Your task to perform on an android device: install app "Spotify" Image 0: 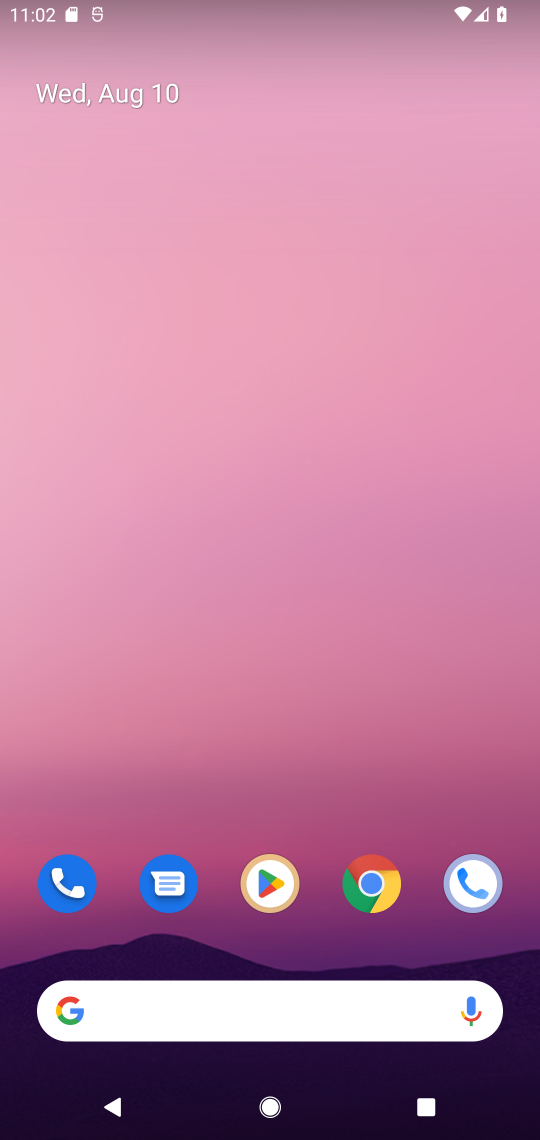
Step 0: drag from (289, 969) to (256, 208)
Your task to perform on an android device: install app "Spotify" Image 1: 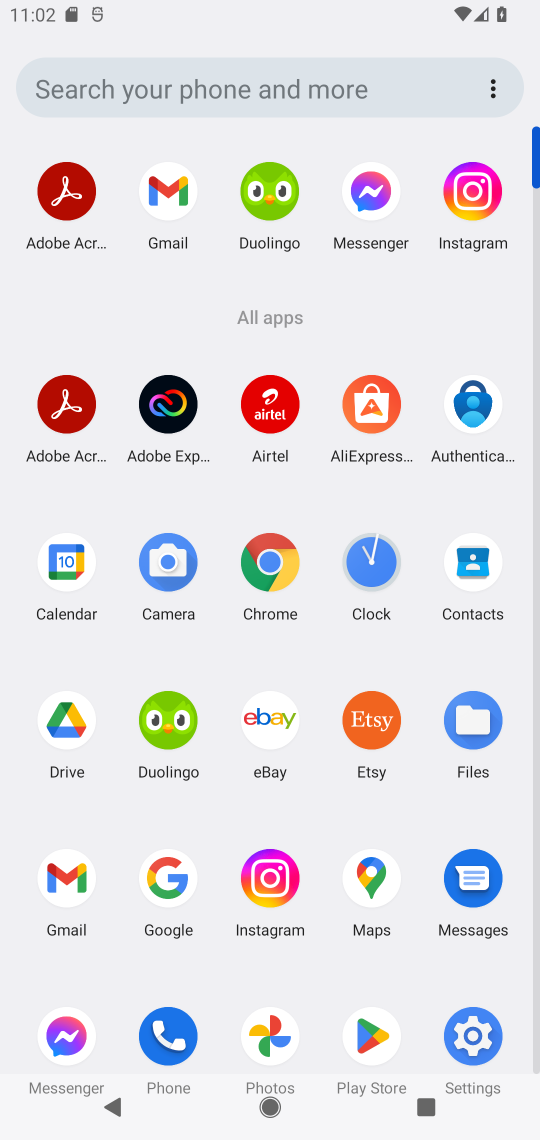
Step 1: click (361, 1031)
Your task to perform on an android device: install app "Spotify" Image 2: 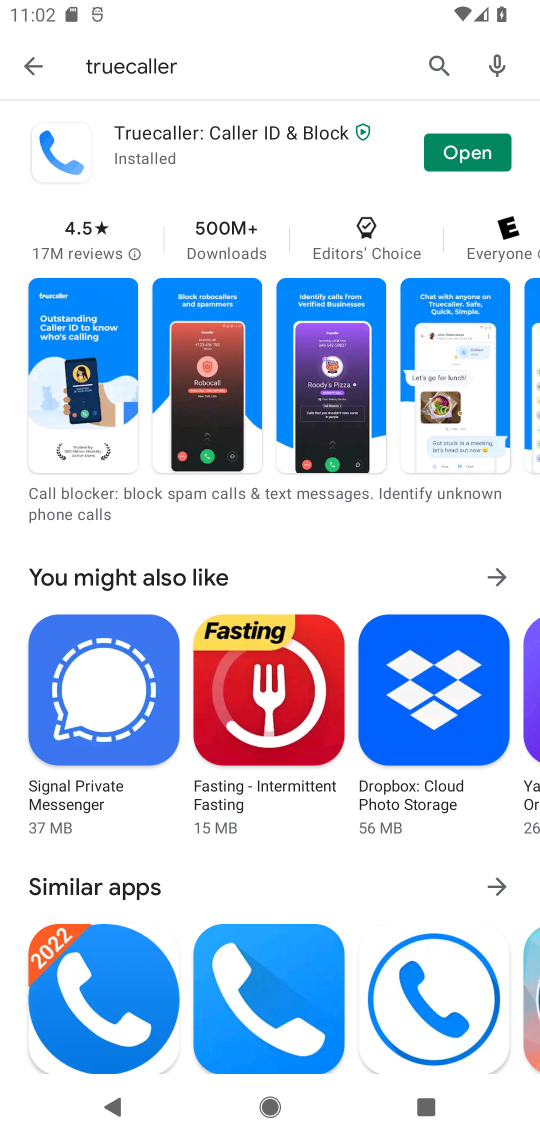
Step 2: click (443, 61)
Your task to perform on an android device: install app "Spotify" Image 3: 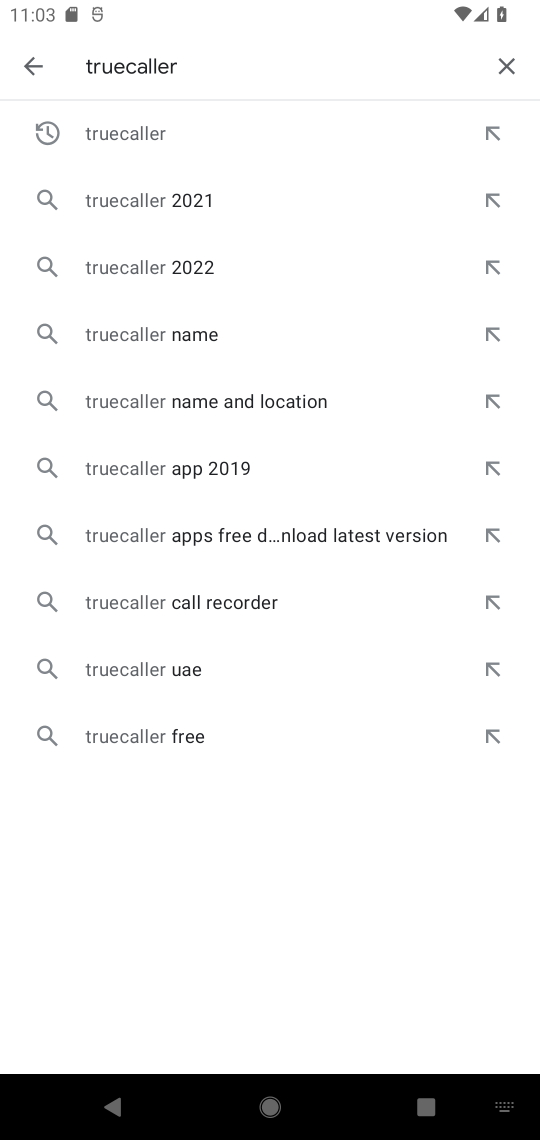
Step 3: click (497, 53)
Your task to perform on an android device: install app "Spotify" Image 4: 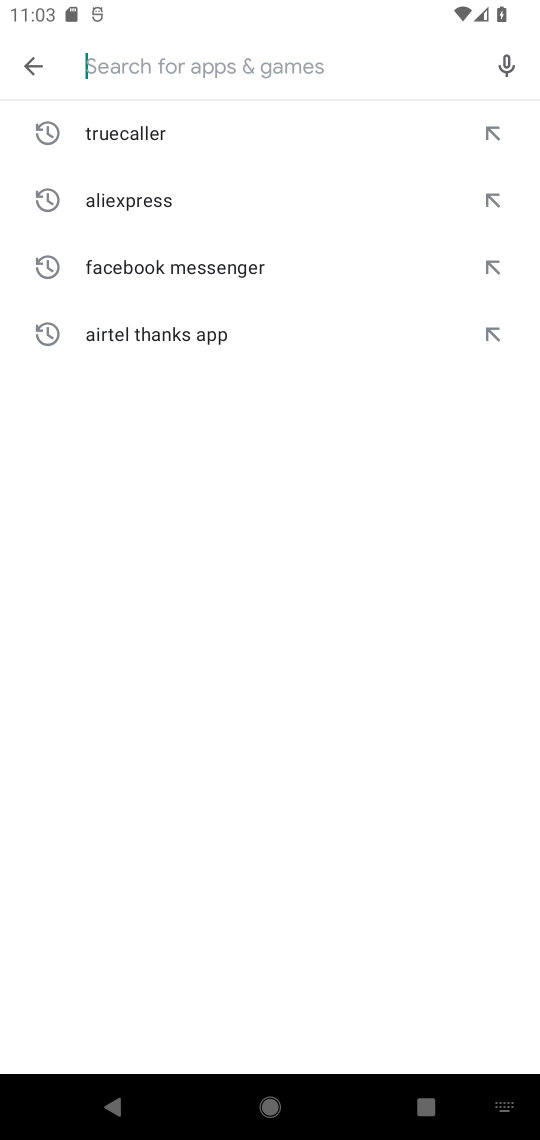
Step 4: type "Spotify"
Your task to perform on an android device: install app "Spotify" Image 5: 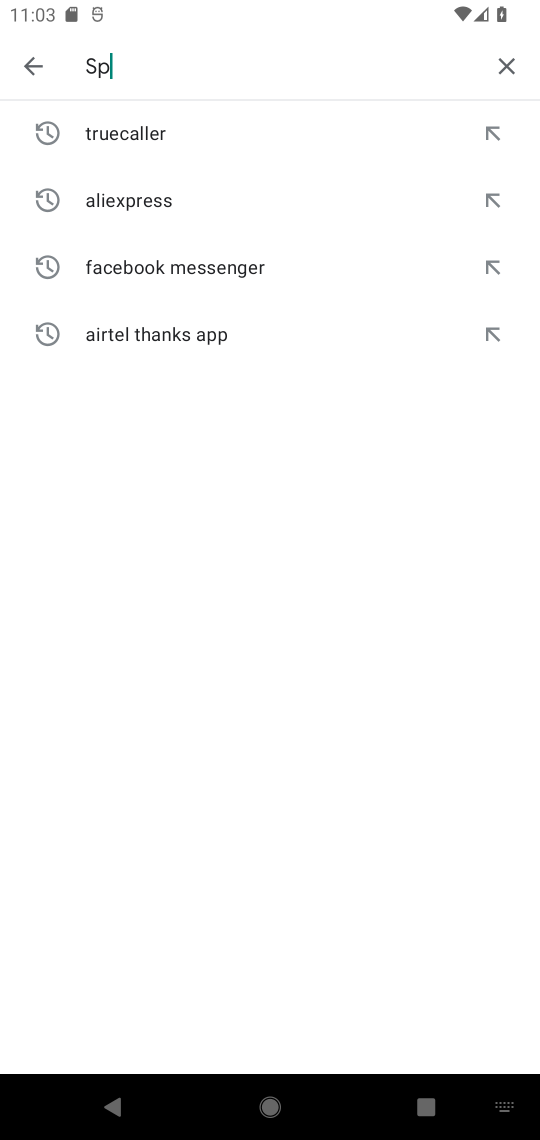
Step 5: type ""
Your task to perform on an android device: install app "Spotify" Image 6: 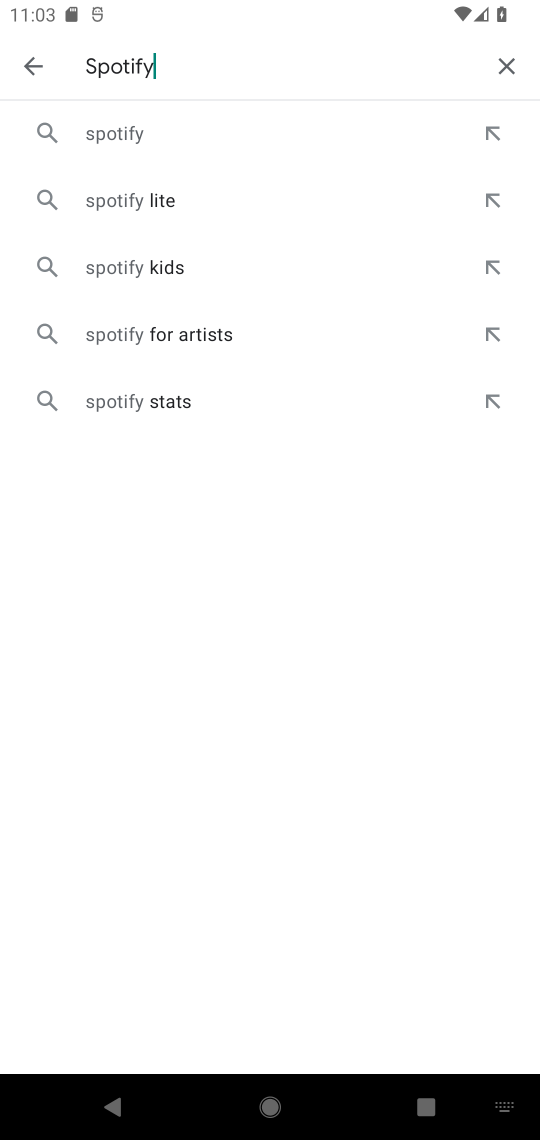
Step 6: click (132, 132)
Your task to perform on an android device: install app "Spotify" Image 7: 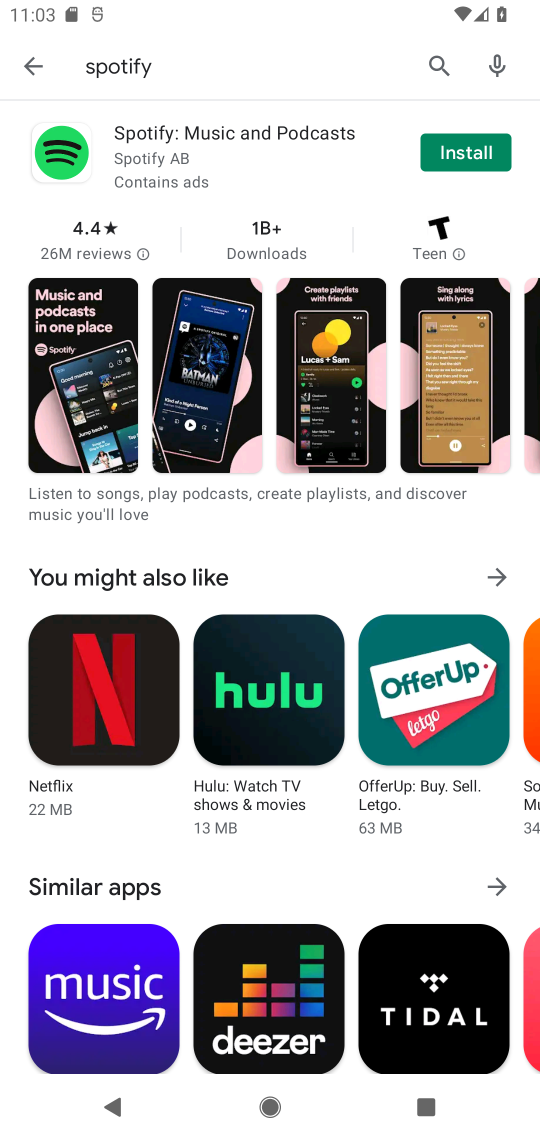
Step 7: click (470, 149)
Your task to perform on an android device: install app "Spotify" Image 8: 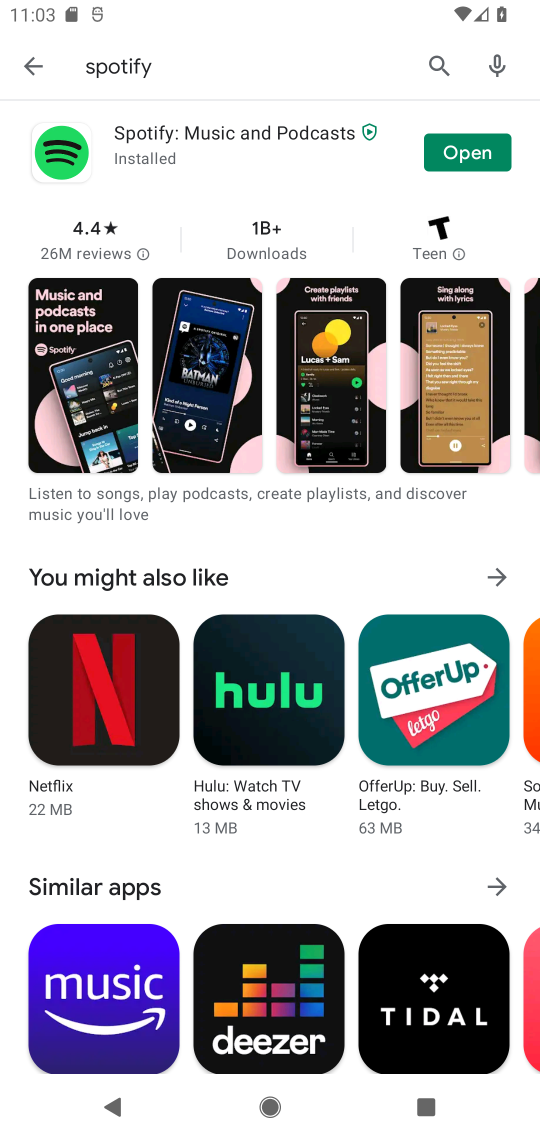
Step 8: task complete